Your task to perform on an android device: toggle improve location accuracy Image 0: 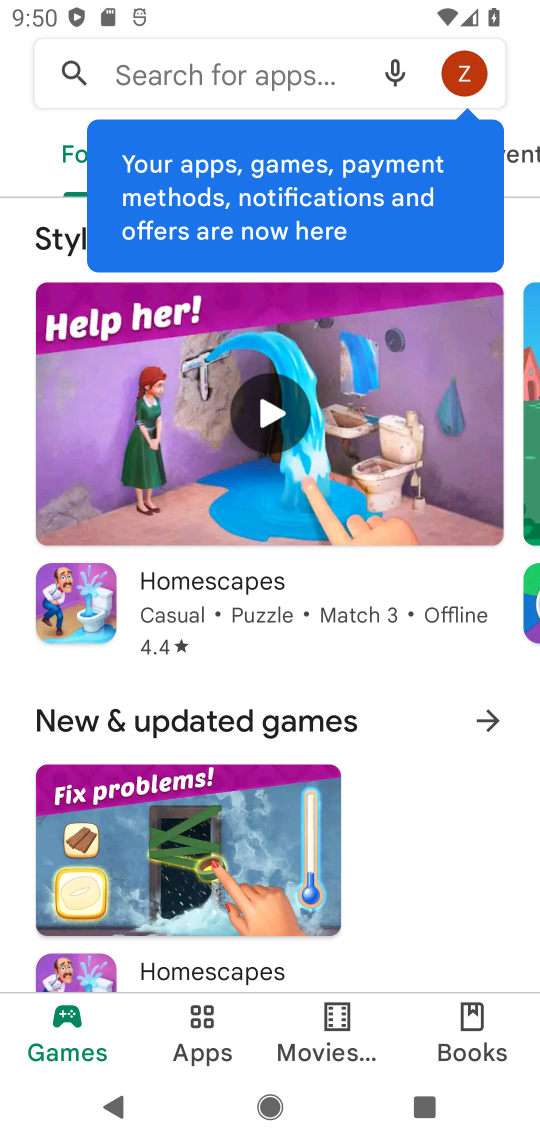
Step 0: press home button
Your task to perform on an android device: toggle improve location accuracy Image 1: 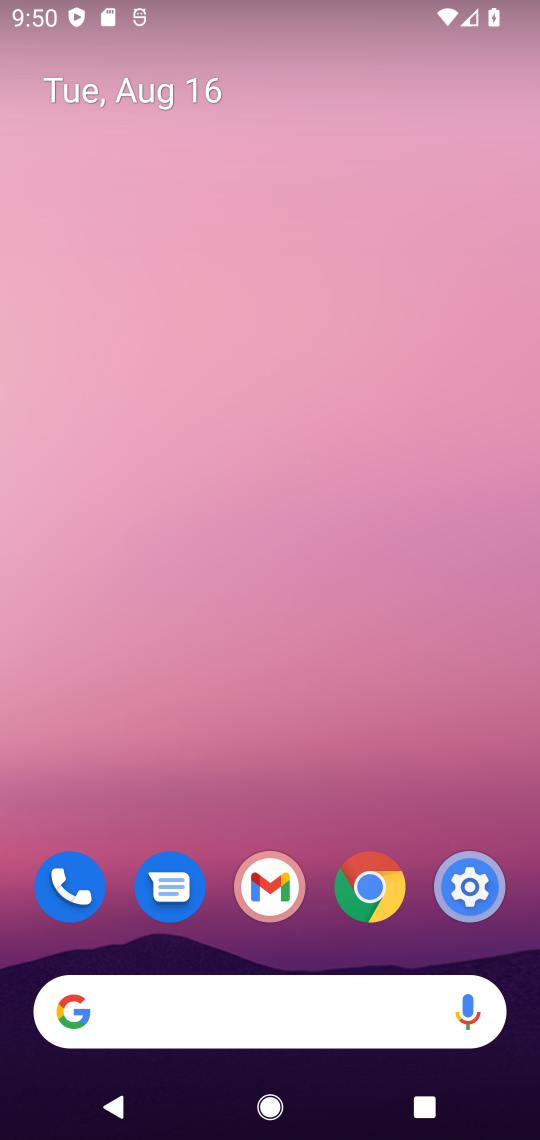
Step 1: drag from (420, 810) to (444, 193)
Your task to perform on an android device: toggle improve location accuracy Image 2: 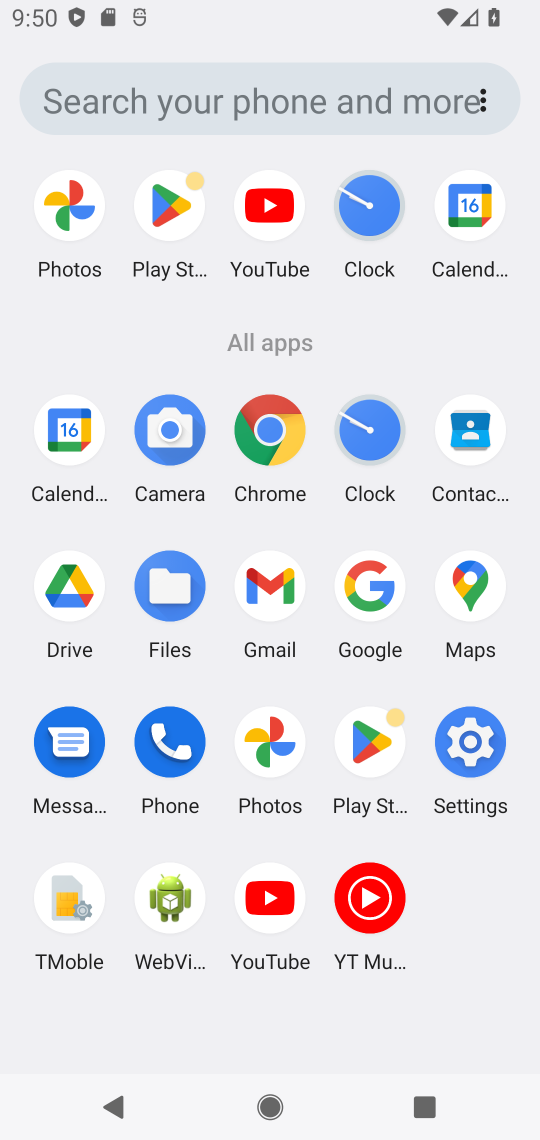
Step 2: click (468, 744)
Your task to perform on an android device: toggle improve location accuracy Image 3: 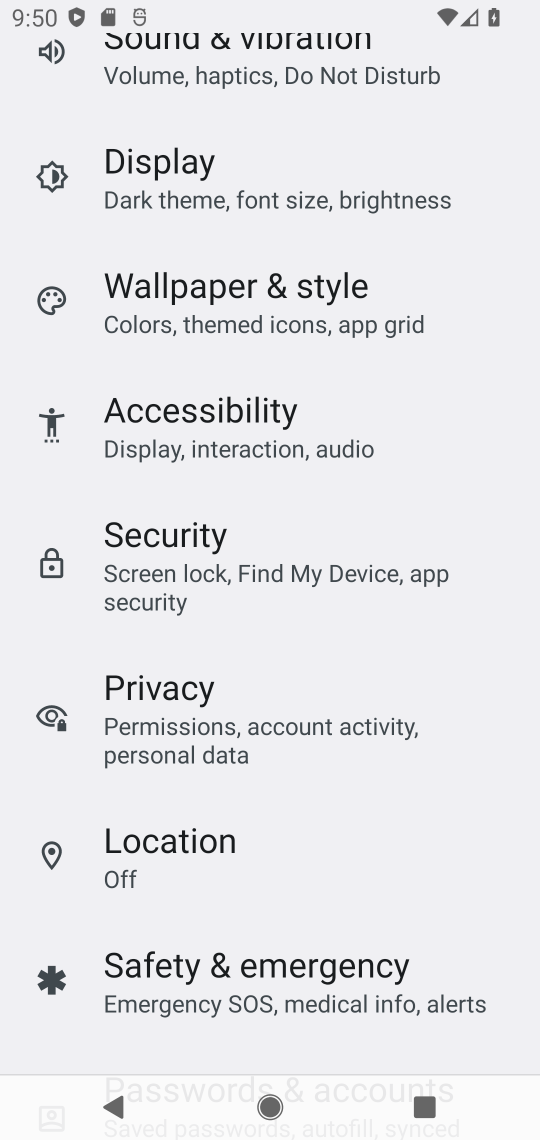
Step 3: click (213, 862)
Your task to perform on an android device: toggle improve location accuracy Image 4: 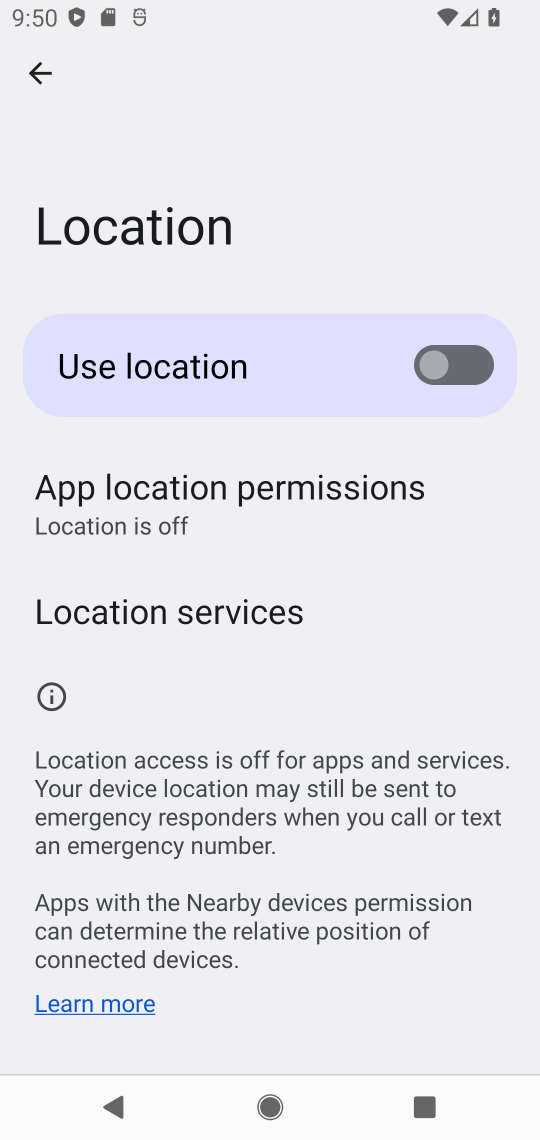
Step 4: click (266, 624)
Your task to perform on an android device: toggle improve location accuracy Image 5: 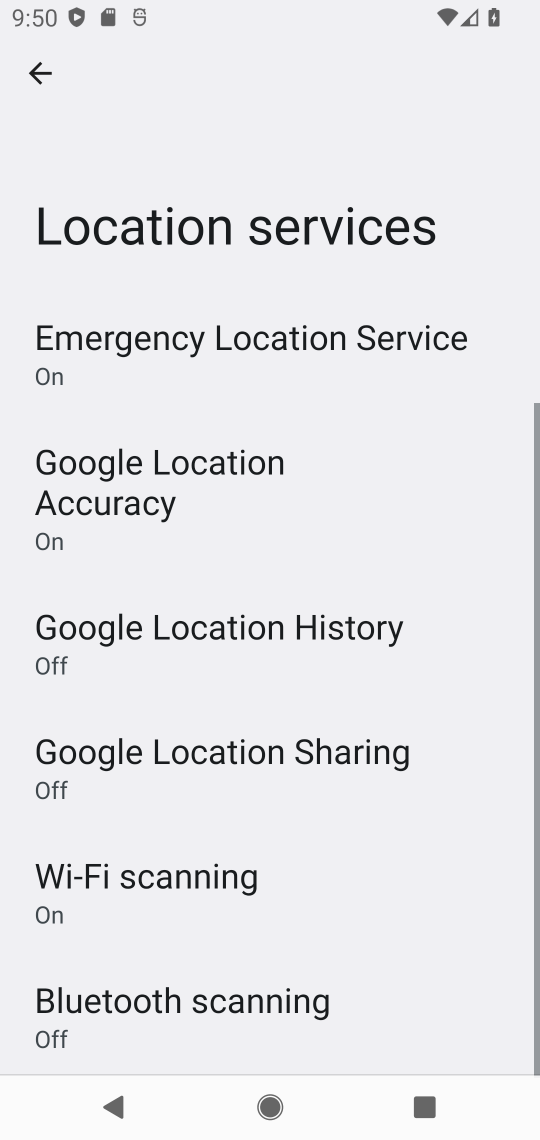
Step 5: drag from (400, 837) to (441, 685)
Your task to perform on an android device: toggle improve location accuracy Image 6: 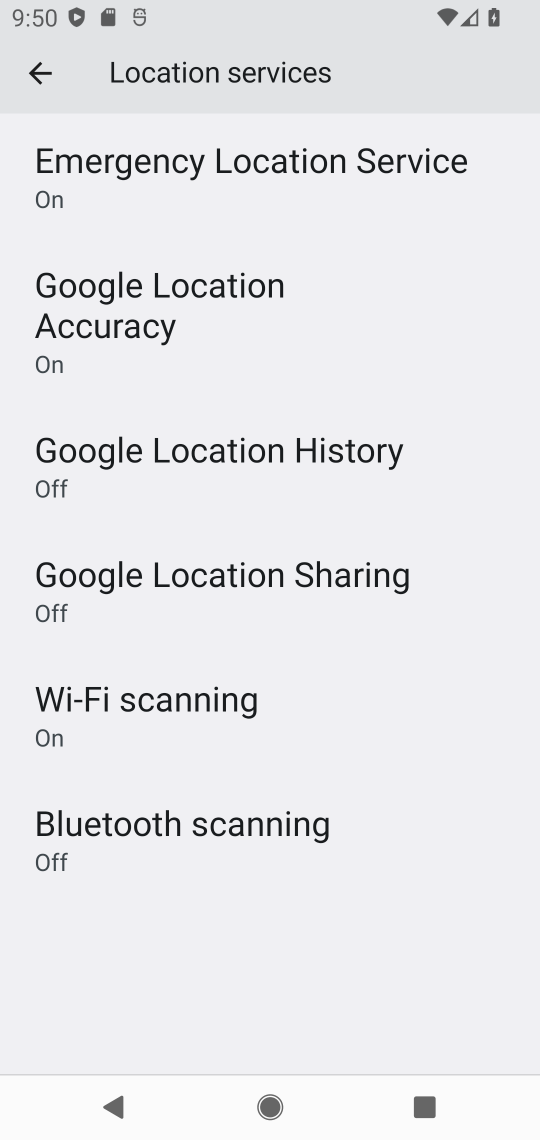
Step 6: click (173, 323)
Your task to perform on an android device: toggle improve location accuracy Image 7: 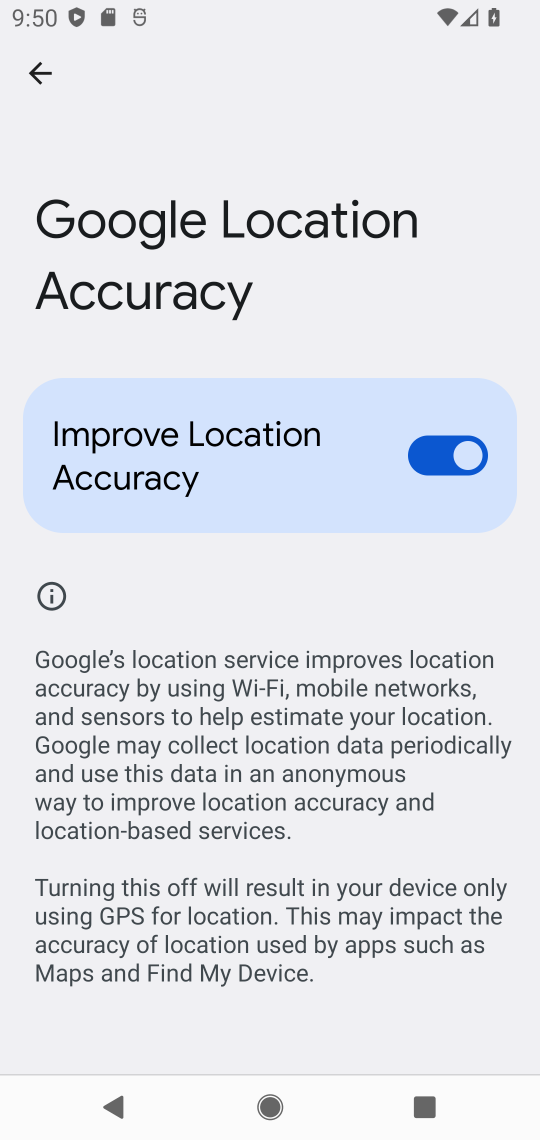
Step 7: click (436, 453)
Your task to perform on an android device: toggle improve location accuracy Image 8: 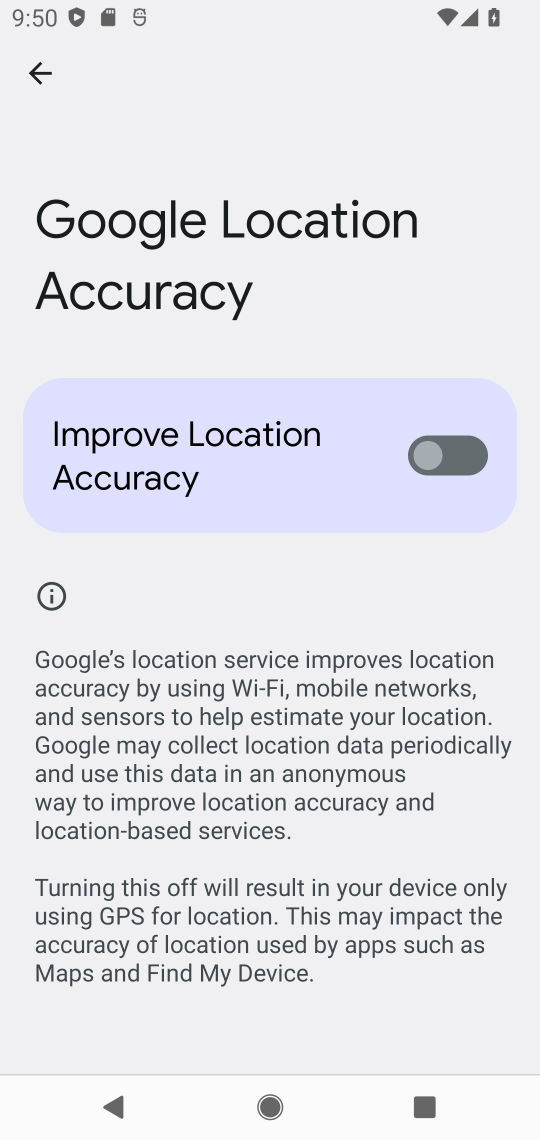
Step 8: task complete